Your task to perform on an android device: Open Google Image 0: 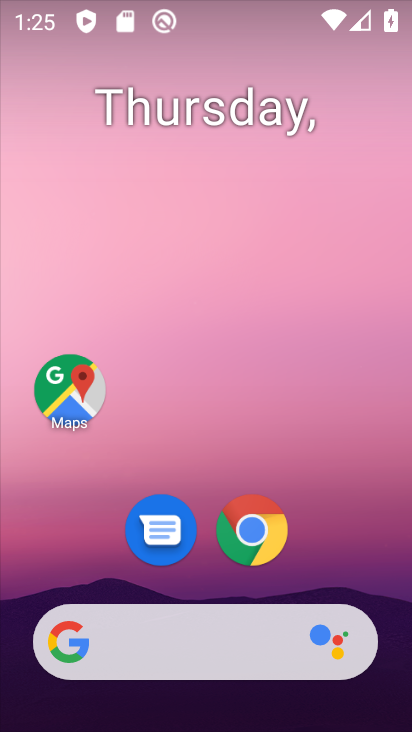
Step 0: drag from (277, 642) to (238, 21)
Your task to perform on an android device: Open Google Image 1: 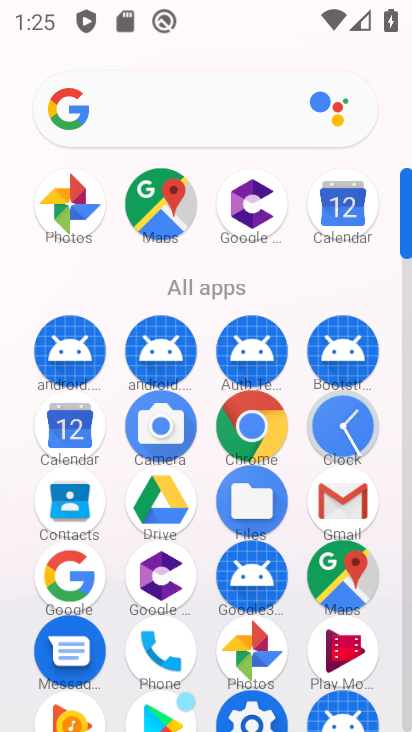
Step 1: click (91, 568)
Your task to perform on an android device: Open Google Image 2: 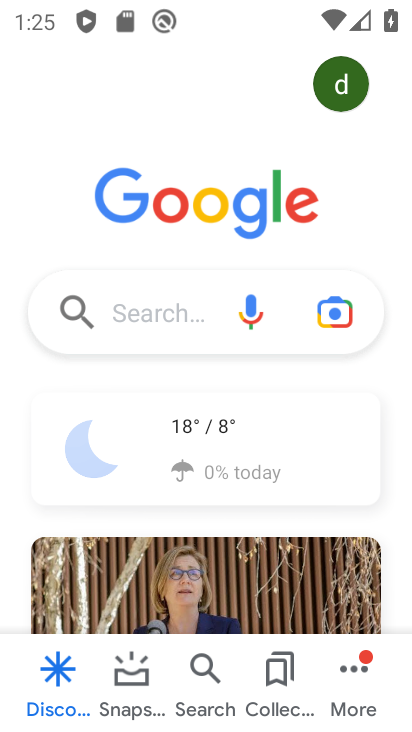
Step 2: task complete